Your task to perform on an android device: See recent photos Image 0: 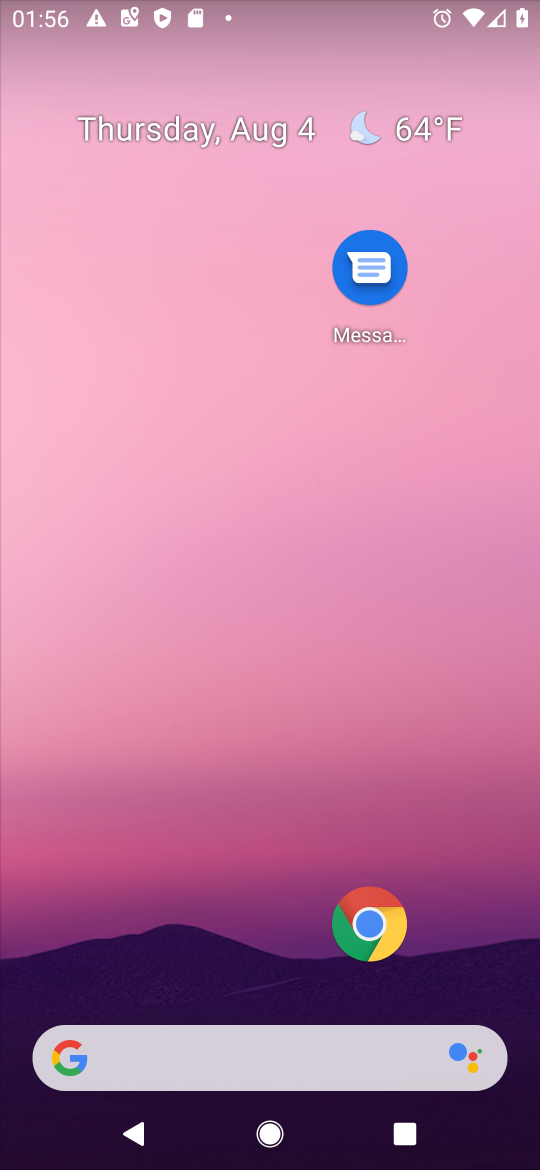
Step 0: drag from (74, 595) to (120, 34)
Your task to perform on an android device: See recent photos Image 1: 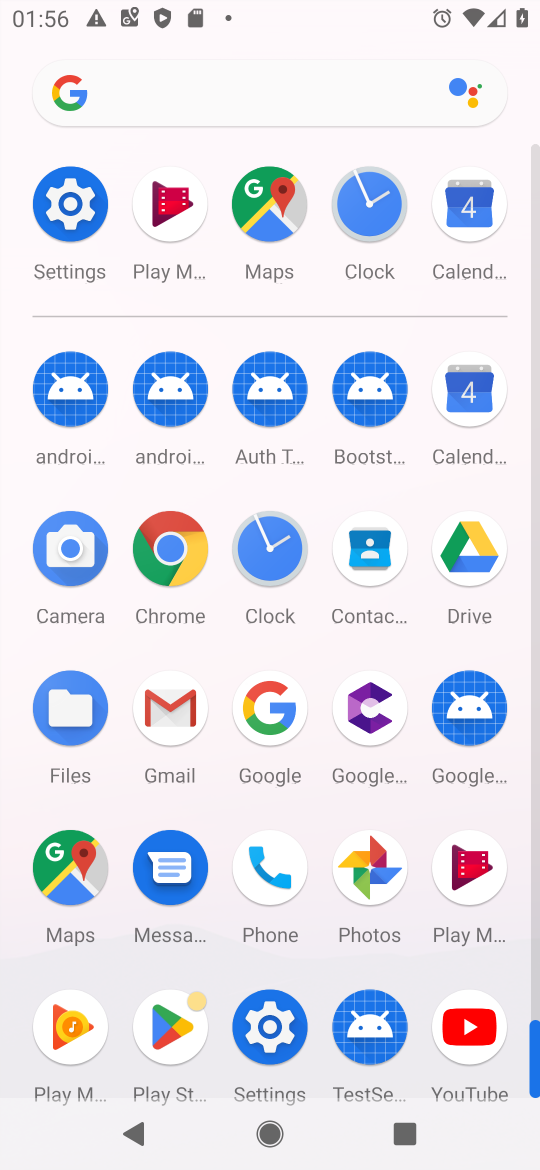
Step 1: click (352, 875)
Your task to perform on an android device: See recent photos Image 2: 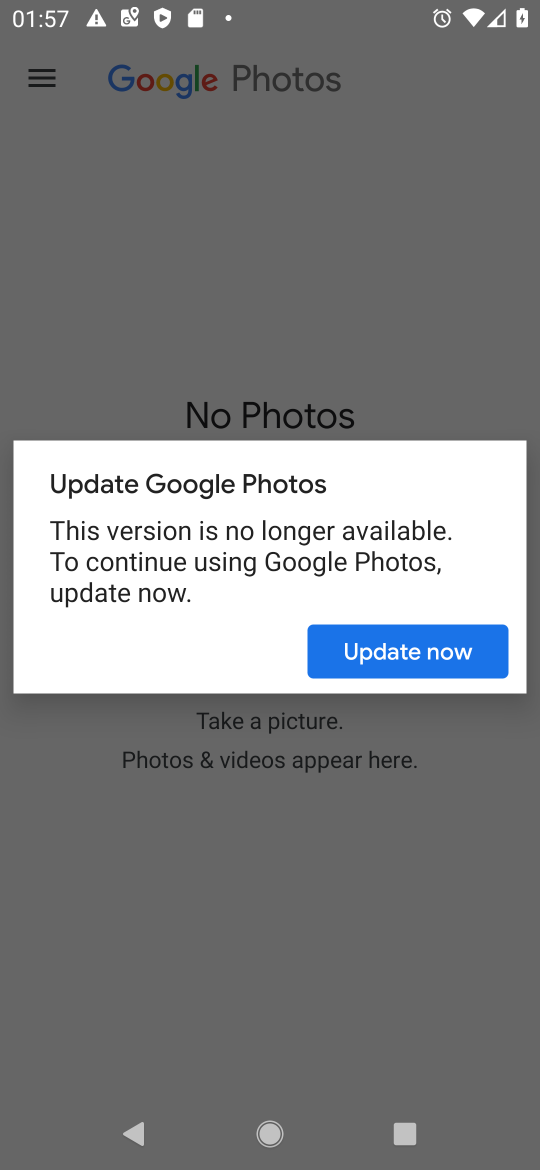
Step 2: click (385, 644)
Your task to perform on an android device: See recent photos Image 3: 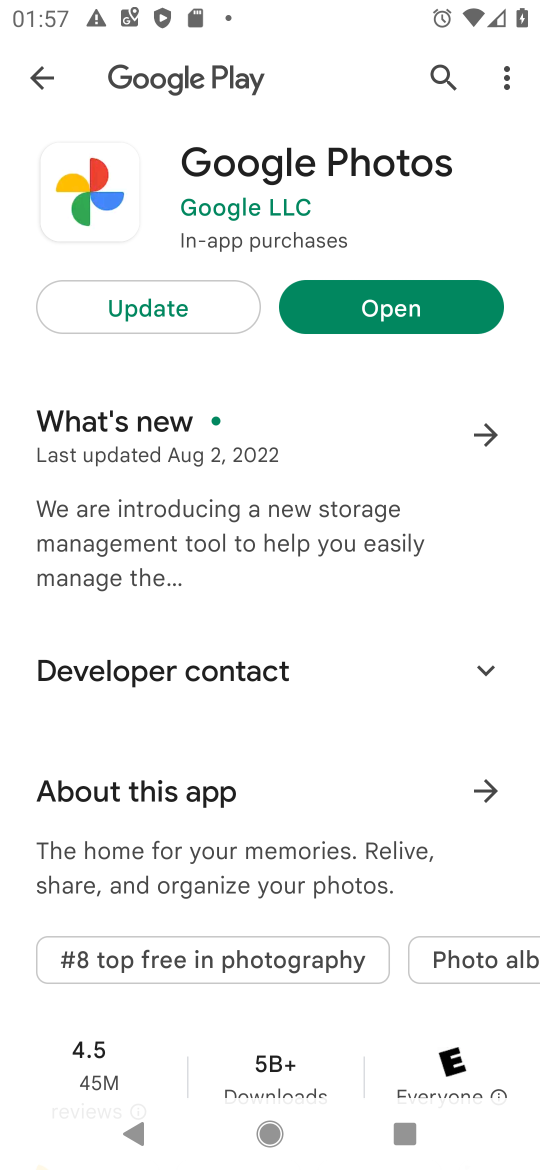
Step 3: click (358, 311)
Your task to perform on an android device: See recent photos Image 4: 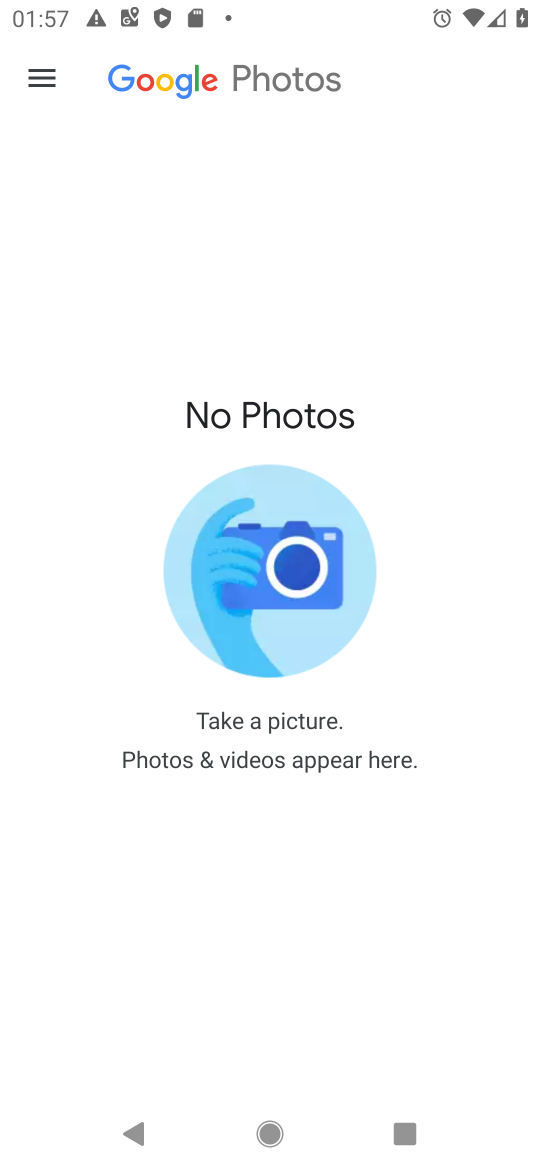
Step 4: task complete